Your task to perform on an android device: turn off airplane mode Image 0: 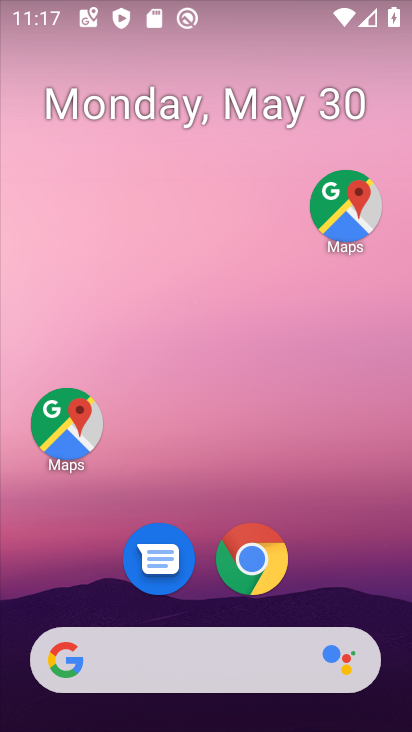
Step 0: drag from (319, 554) to (292, 123)
Your task to perform on an android device: turn off airplane mode Image 1: 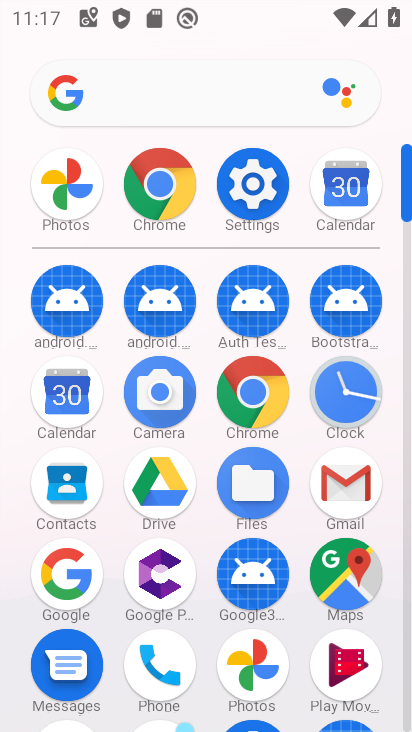
Step 1: click (258, 192)
Your task to perform on an android device: turn off airplane mode Image 2: 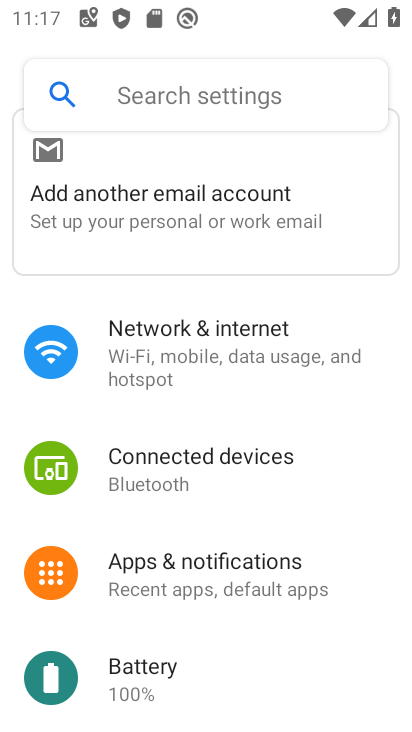
Step 2: click (266, 346)
Your task to perform on an android device: turn off airplane mode Image 3: 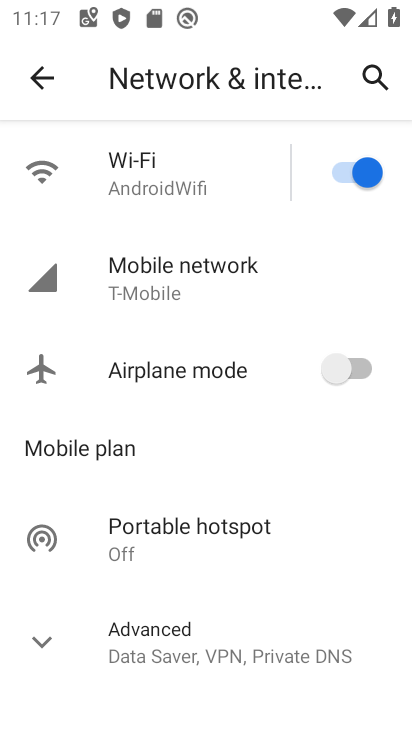
Step 3: task complete